Your task to perform on an android device: toggle notification dots Image 0: 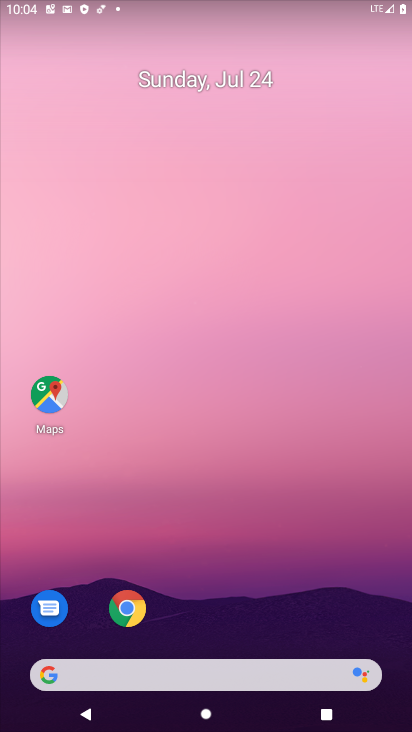
Step 0: press home button
Your task to perform on an android device: toggle notification dots Image 1: 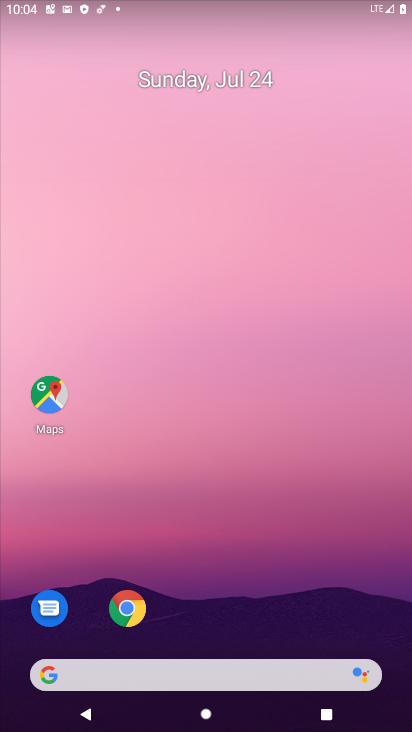
Step 1: drag from (214, 636) to (261, 35)
Your task to perform on an android device: toggle notification dots Image 2: 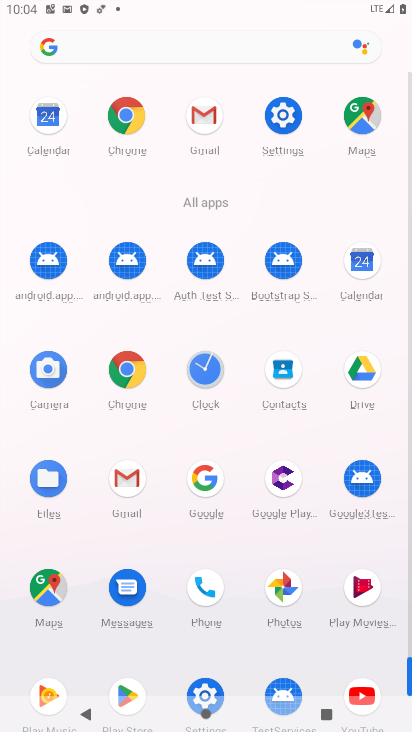
Step 2: click (277, 109)
Your task to perform on an android device: toggle notification dots Image 3: 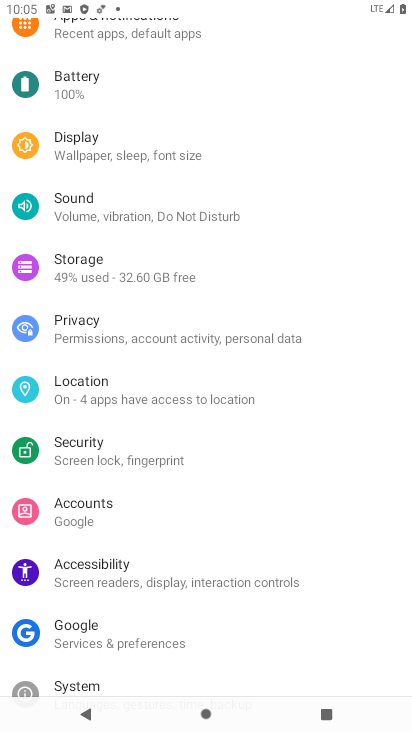
Step 3: click (130, 34)
Your task to perform on an android device: toggle notification dots Image 4: 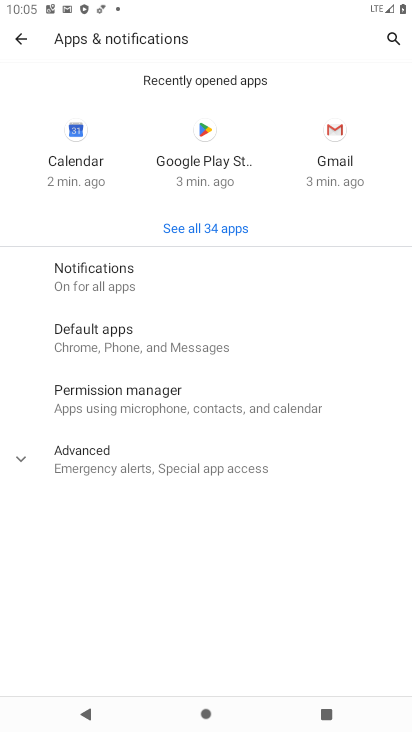
Step 4: click (152, 272)
Your task to perform on an android device: toggle notification dots Image 5: 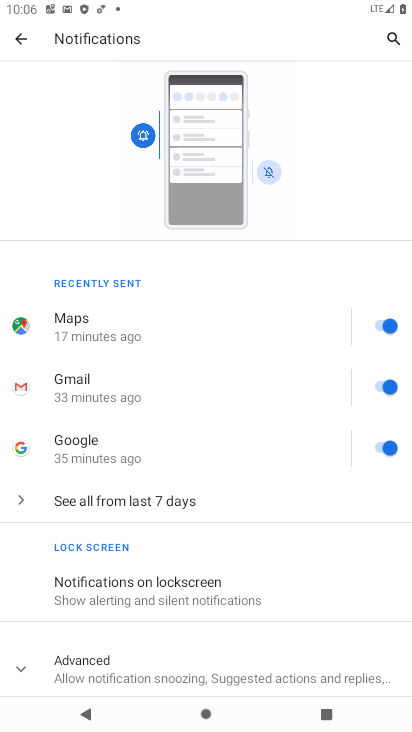
Step 5: click (42, 665)
Your task to perform on an android device: toggle notification dots Image 6: 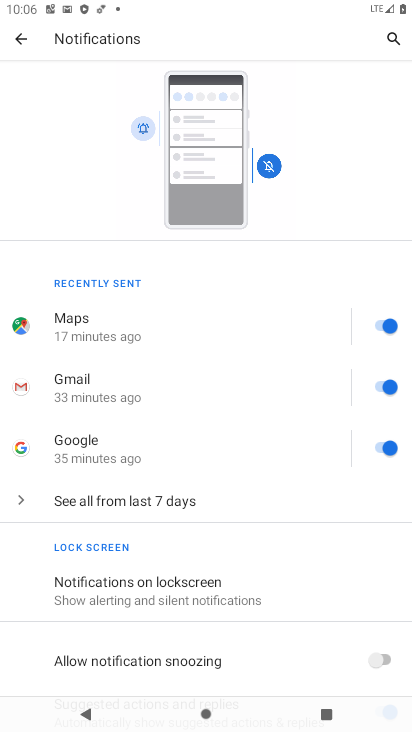
Step 6: drag from (244, 639) to (270, 149)
Your task to perform on an android device: toggle notification dots Image 7: 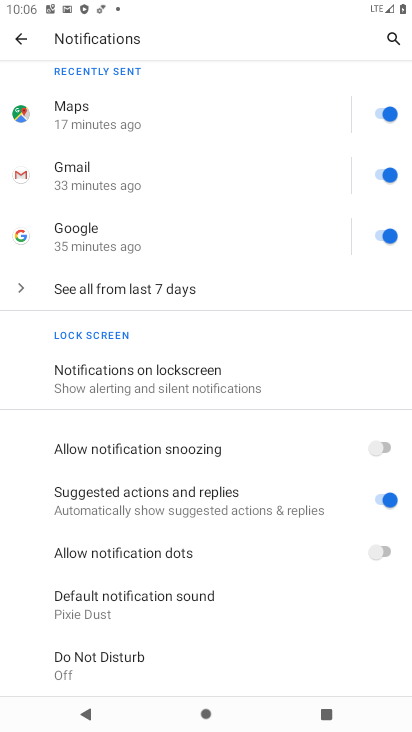
Step 7: click (381, 545)
Your task to perform on an android device: toggle notification dots Image 8: 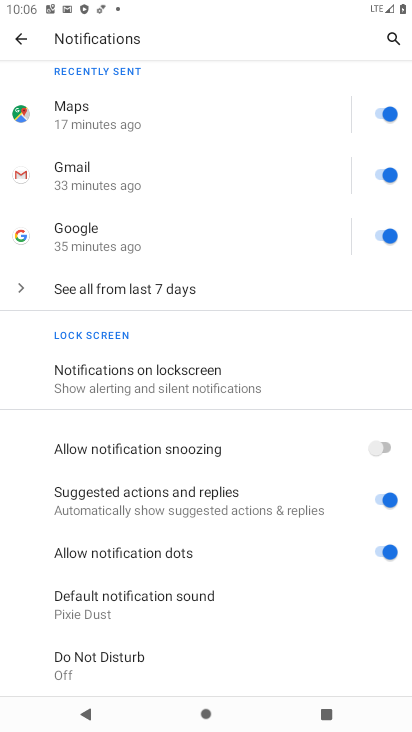
Step 8: task complete